Your task to perform on an android device: Go to display settings Image 0: 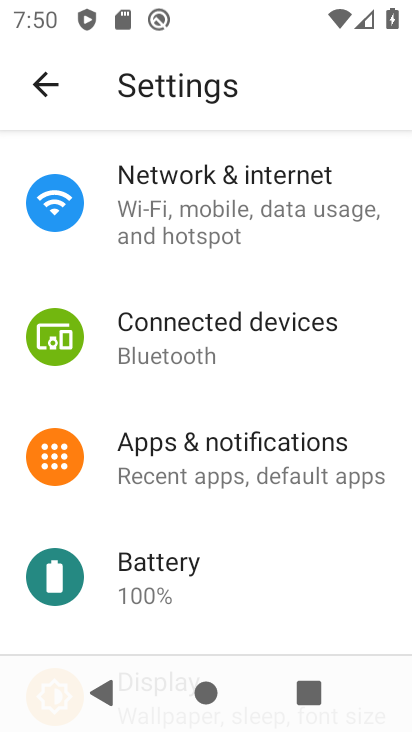
Step 0: drag from (269, 551) to (281, 150)
Your task to perform on an android device: Go to display settings Image 1: 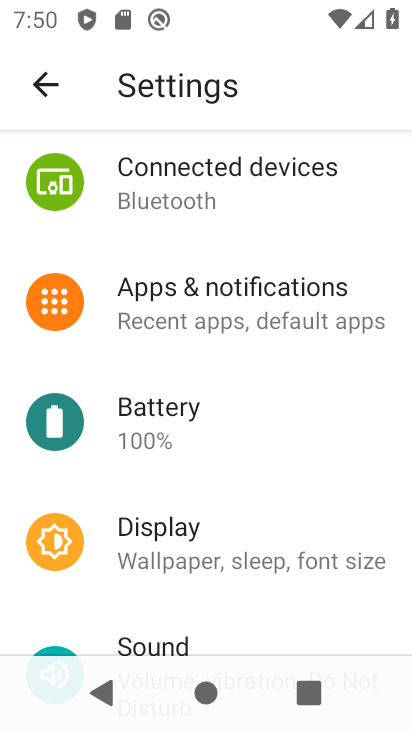
Step 1: click (239, 519)
Your task to perform on an android device: Go to display settings Image 2: 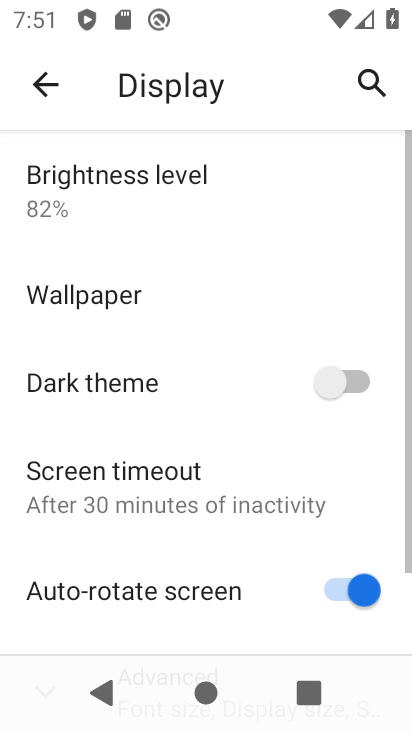
Step 2: task complete